Your task to perform on an android device: turn off smart reply in the gmail app Image 0: 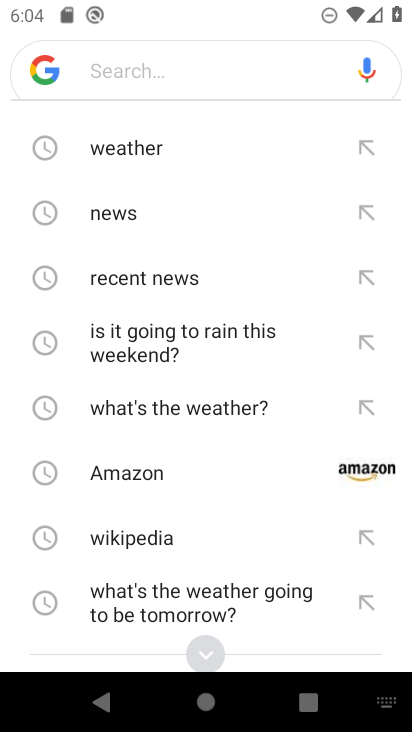
Step 0: press home button
Your task to perform on an android device: turn off smart reply in the gmail app Image 1: 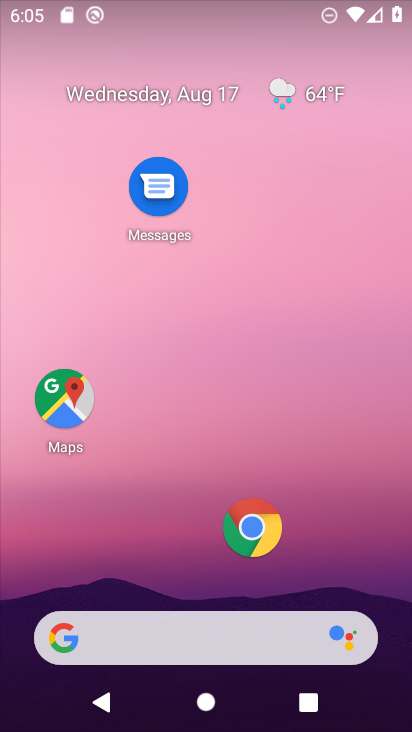
Step 1: drag from (189, 606) to (152, 260)
Your task to perform on an android device: turn off smart reply in the gmail app Image 2: 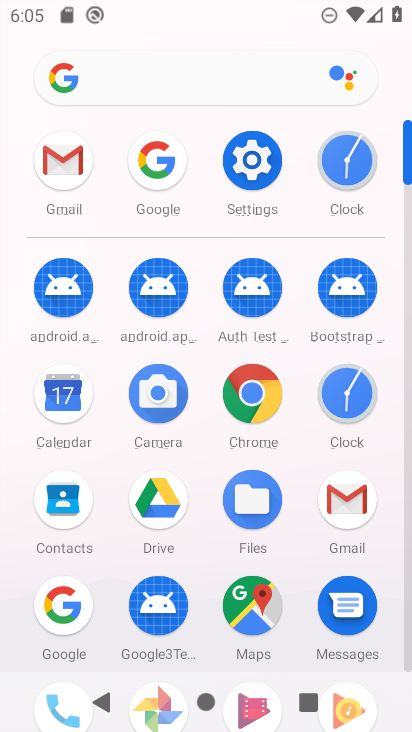
Step 2: click (57, 175)
Your task to perform on an android device: turn off smart reply in the gmail app Image 3: 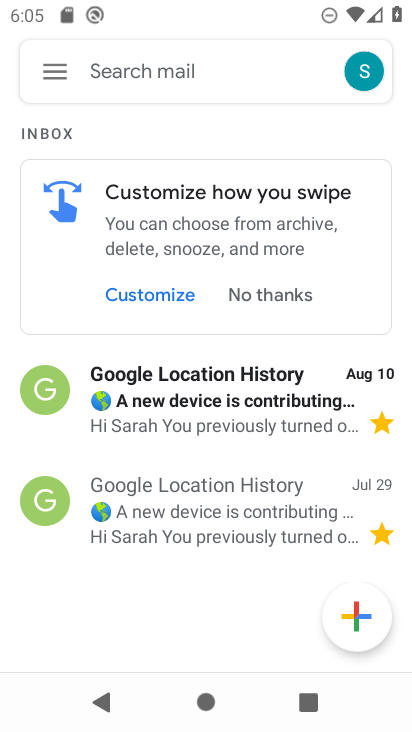
Step 3: click (66, 74)
Your task to perform on an android device: turn off smart reply in the gmail app Image 4: 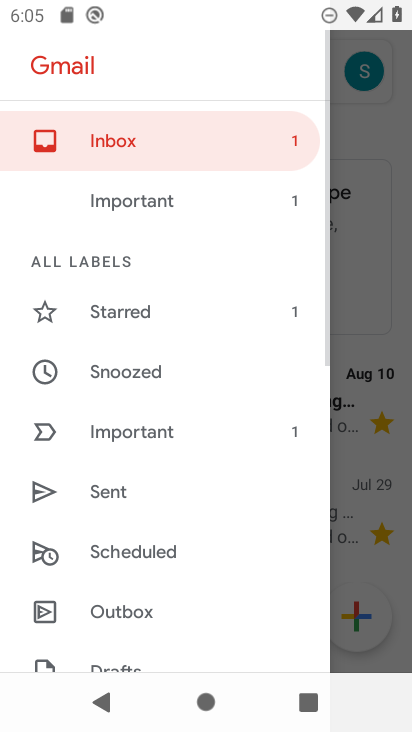
Step 4: drag from (117, 637) to (92, 329)
Your task to perform on an android device: turn off smart reply in the gmail app Image 5: 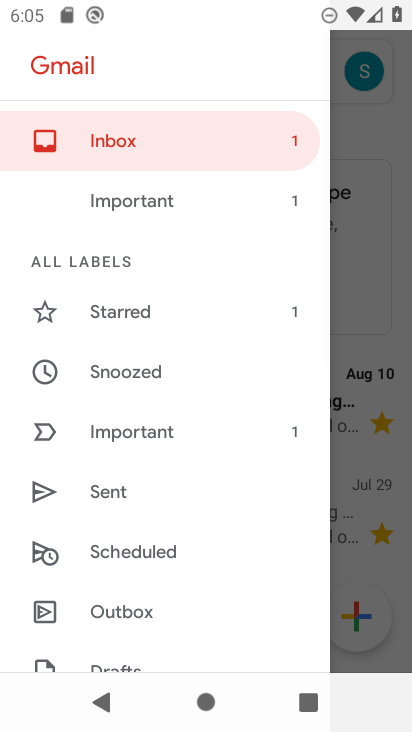
Step 5: drag from (80, 461) to (80, 276)
Your task to perform on an android device: turn off smart reply in the gmail app Image 6: 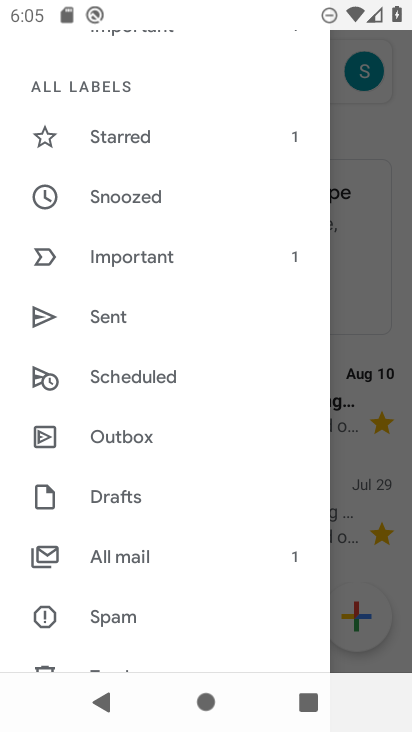
Step 6: drag from (86, 610) to (71, 229)
Your task to perform on an android device: turn off smart reply in the gmail app Image 7: 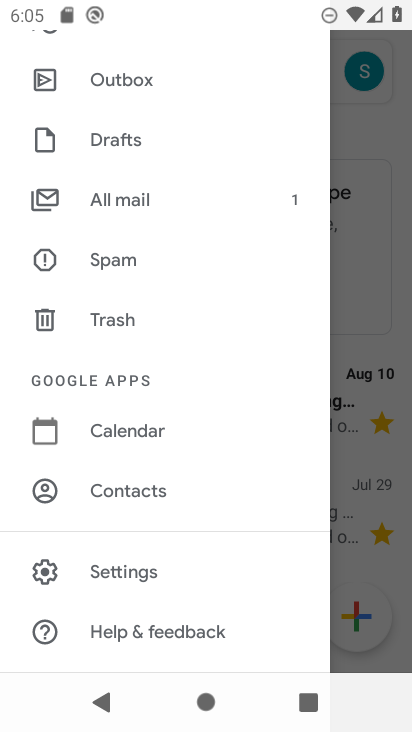
Step 7: click (84, 572)
Your task to perform on an android device: turn off smart reply in the gmail app Image 8: 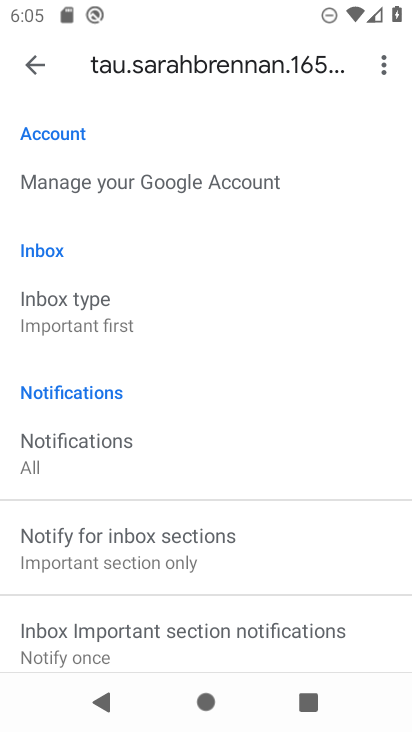
Step 8: drag from (105, 637) to (104, 269)
Your task to perform on an android device: turn off smart reply in the gmail app Image 9: 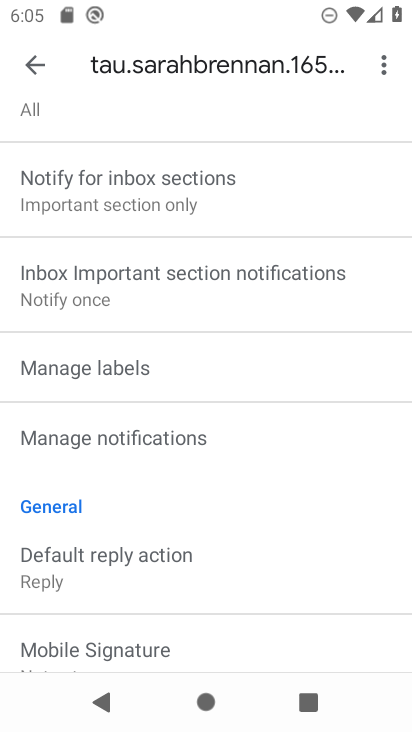
Step 9: drag from (63, 647) to (79, 269)
Your task to perform on an android device: turn off smart reply in the gmail app Image 10: 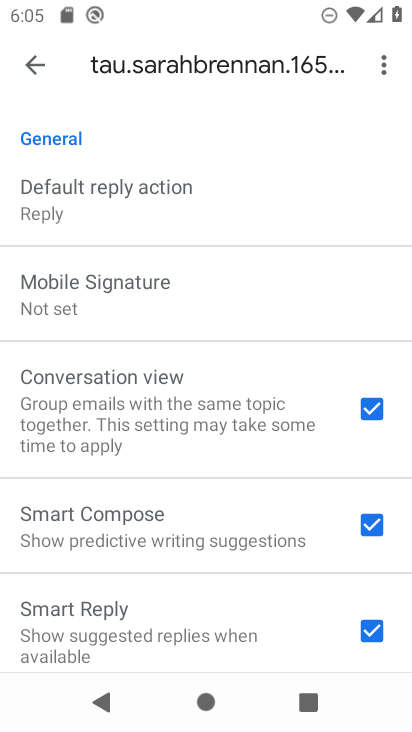
Step 10: click (364, 636)
Your task to perform on an android device: turn off smart reply in the gmail app Image 11: 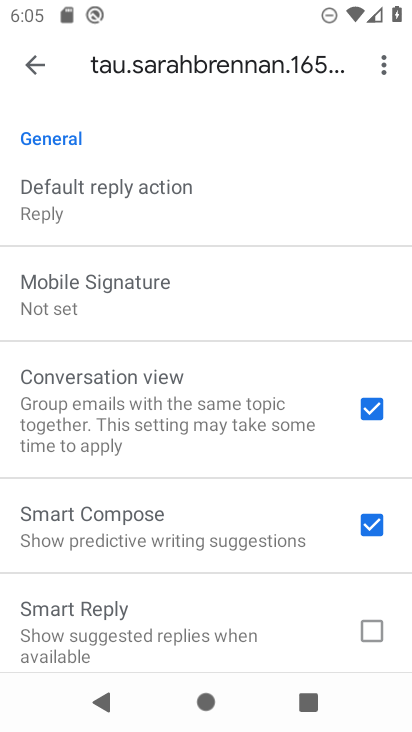
Step 11: task complete